Your task to perform on an android device: change notification settings in the gmail app Image 0: 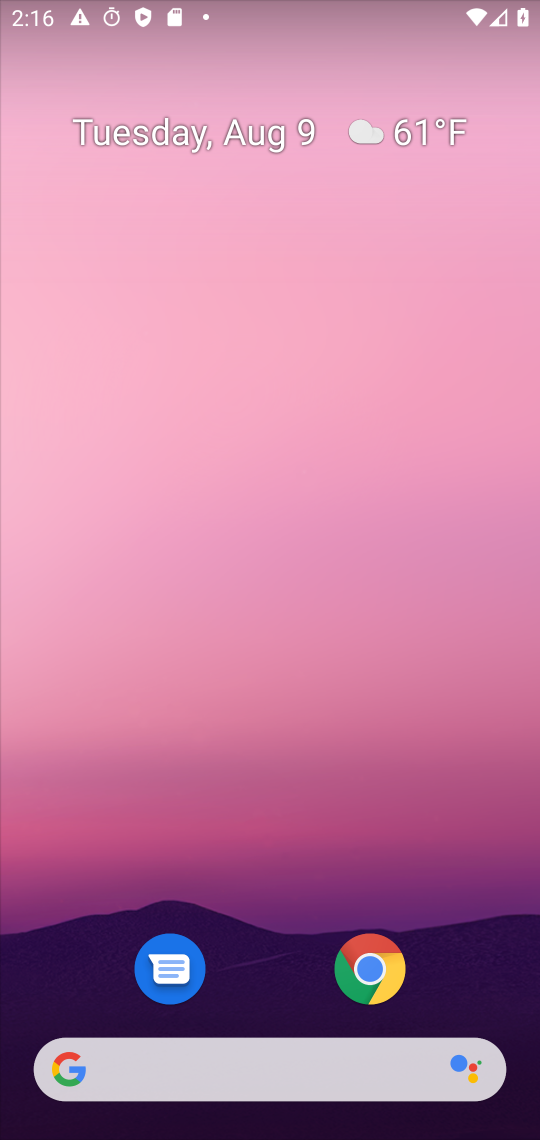
Step 0: press home button
Your task to perform on an android device: change notification settings in the gmail app Image 1: 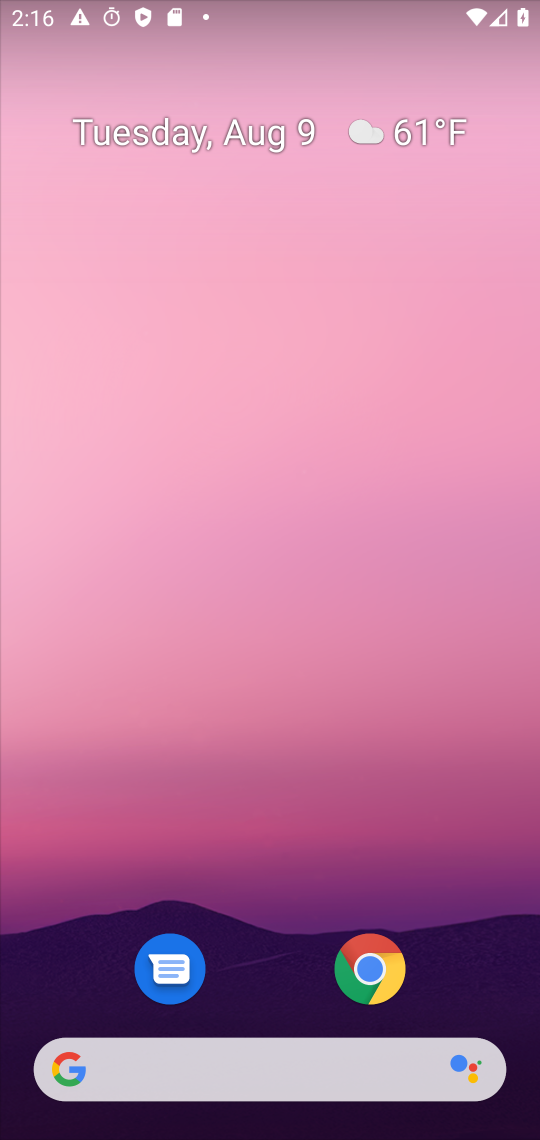
Step 1: drag from (349, 1094) to (205, 522)
Your task to perform on an android device: change notification settings in the gmail app Image 2: 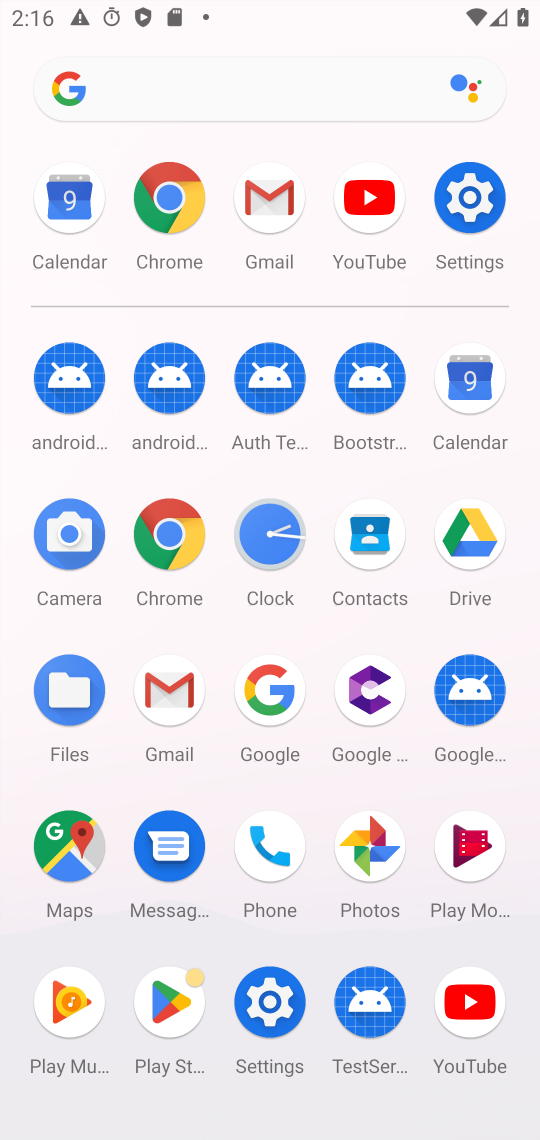
Step 2: click (160, 682)
Your task to perform on an android device: change notification settings in the gmail app Image 3: 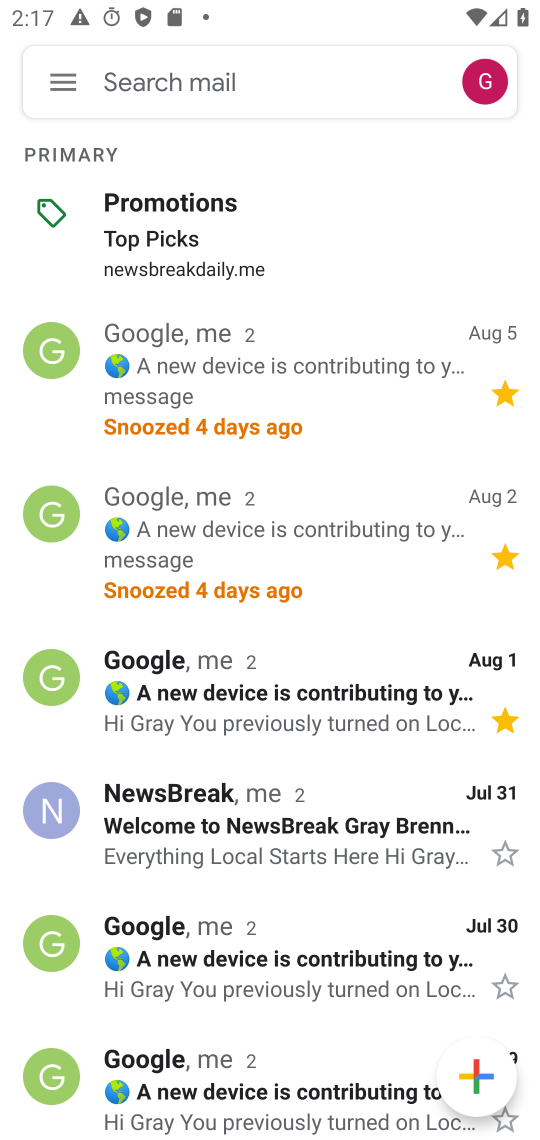
Step 3: click (62, 89)
Your task to perform on an android device: change notification settings in the gmail app Image 4: 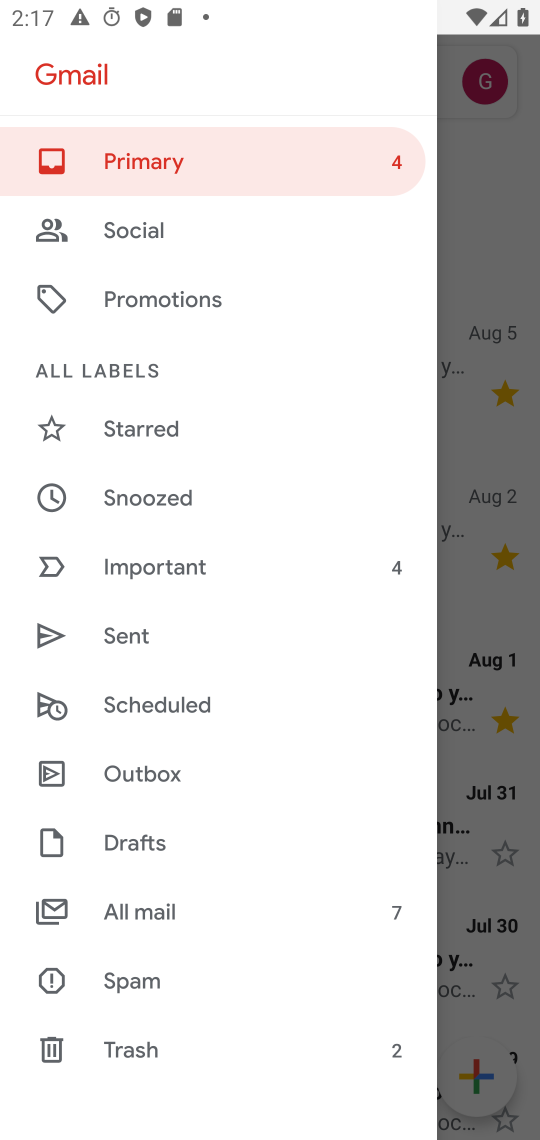
Step 4: drag from (165, 902) to (149, 687)
Your task to perform on an android device: change notification settings in the gmail app Image 5: 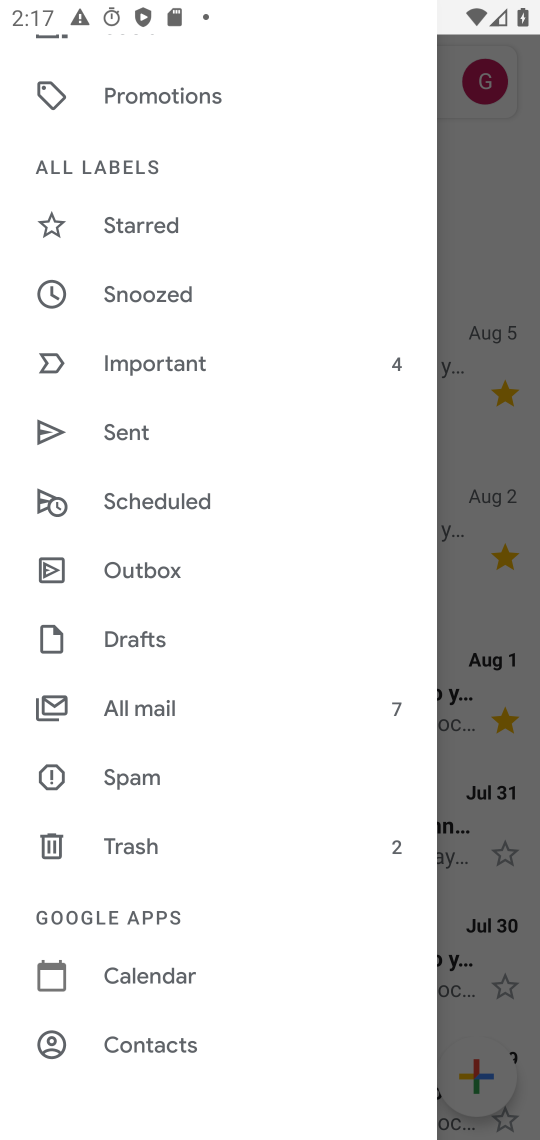
Step 5: drag from (190, 963) to (166, 823)
Your task to perform on an android device: change notification settings in the gmail app Image 6: 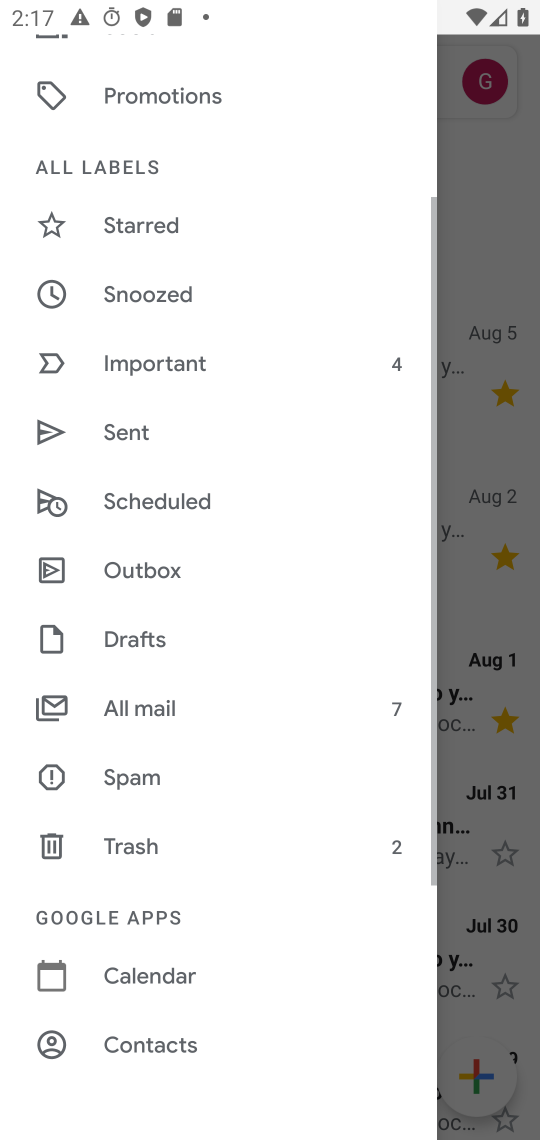
Step 6: drag from (174, 961) to (209, 823)
Your task to perform on an android device: change notification settings in the gmail app Image 7: 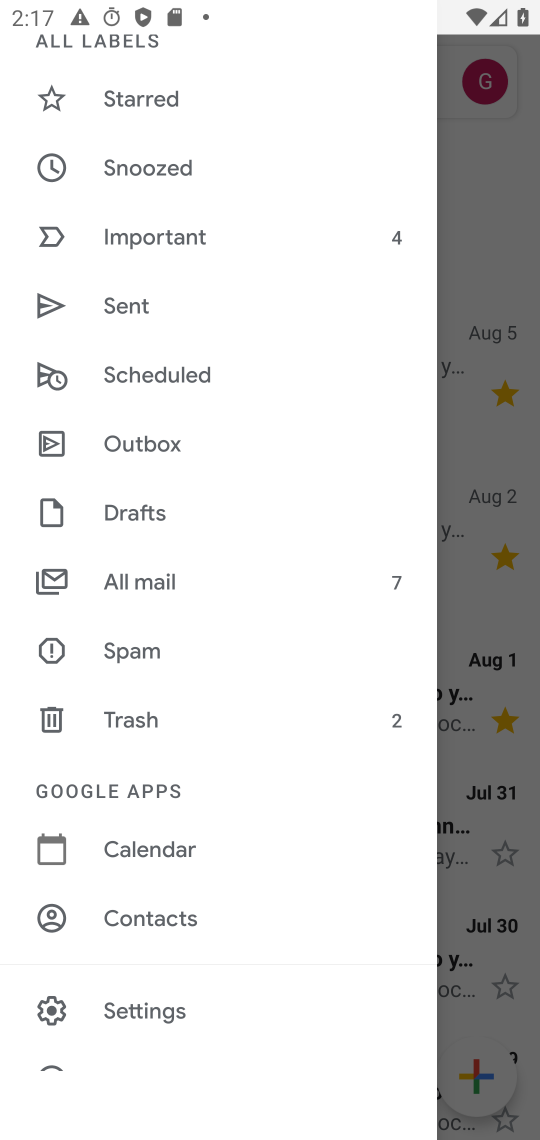
Step 7: click (133, 998)
Your task to perform on an android device: change notification settings in the gmail app Image 8: 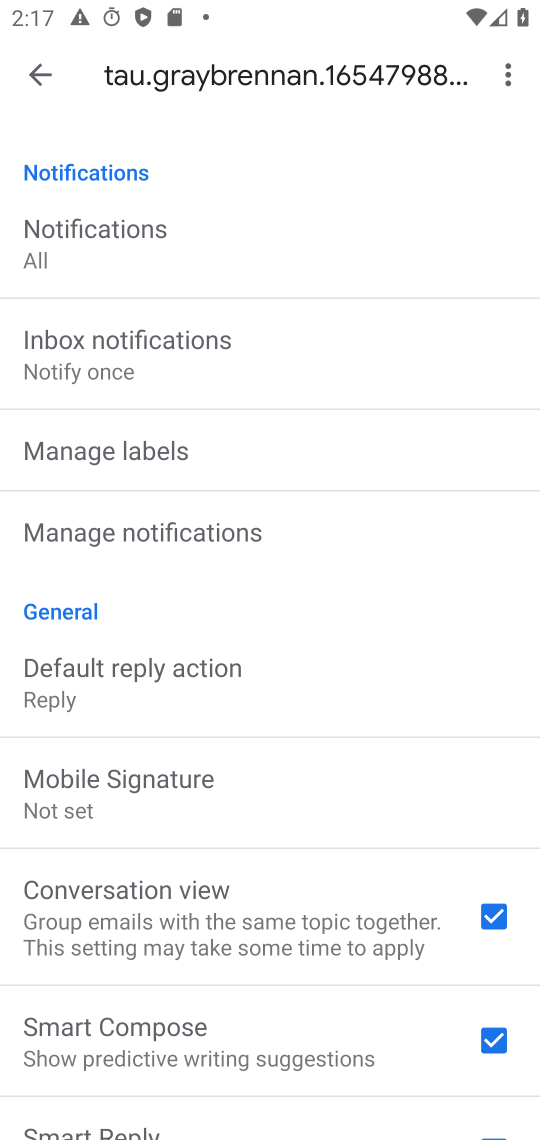
Step 8: drag from (138, 816) to (142, 600)
Your task to perform on an android device: change notification settings in the gmail app Image 9: 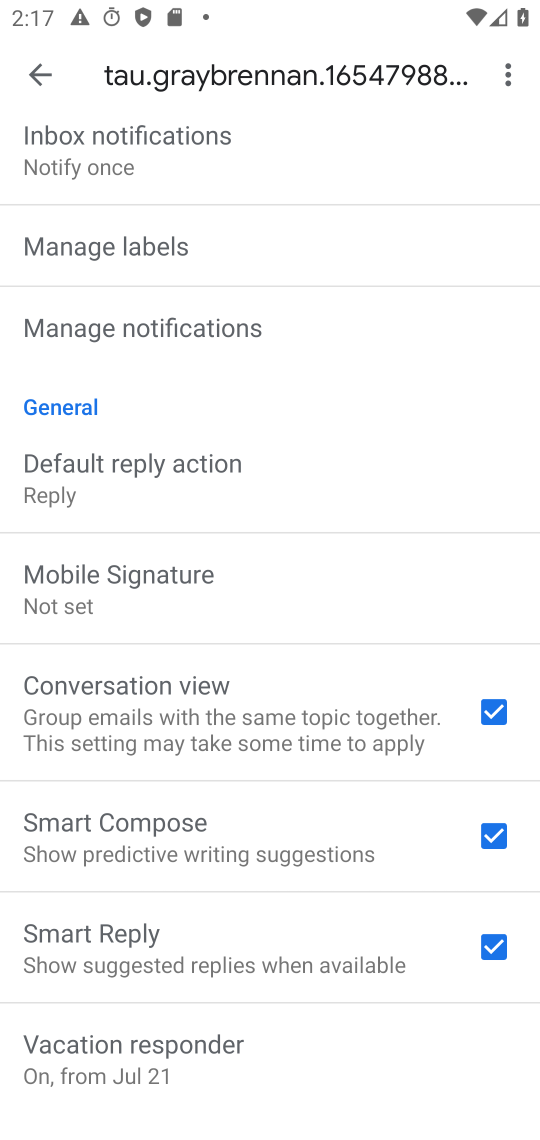
Step 9: drag from (132, 422) to (219, 750)
Your task to perform on an android device: change notification settings in the gmail app Image 10: 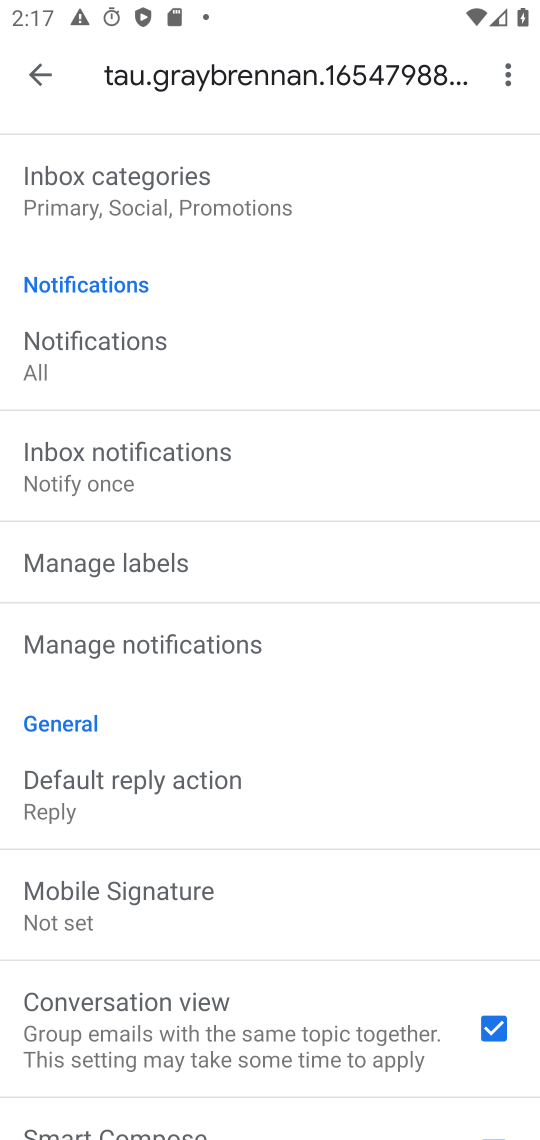
Step 10: click (154, 338)
Your task to perform on an android device: change notification settings in the gmail app Image 11: 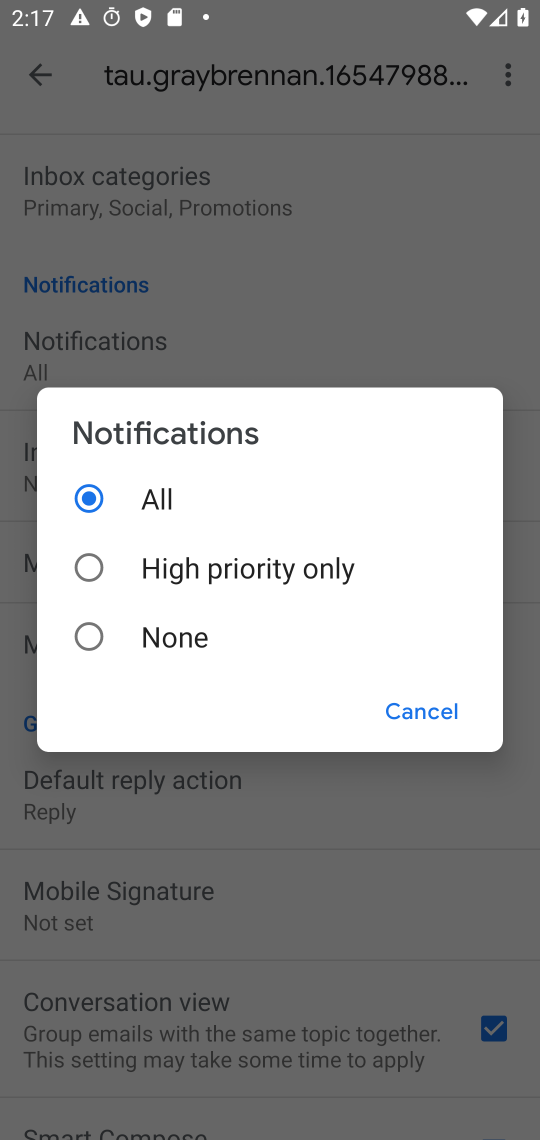
Step 11: click (152, 616)
Your task to perform on an android device: change notification settings in the gmail app Image 12: 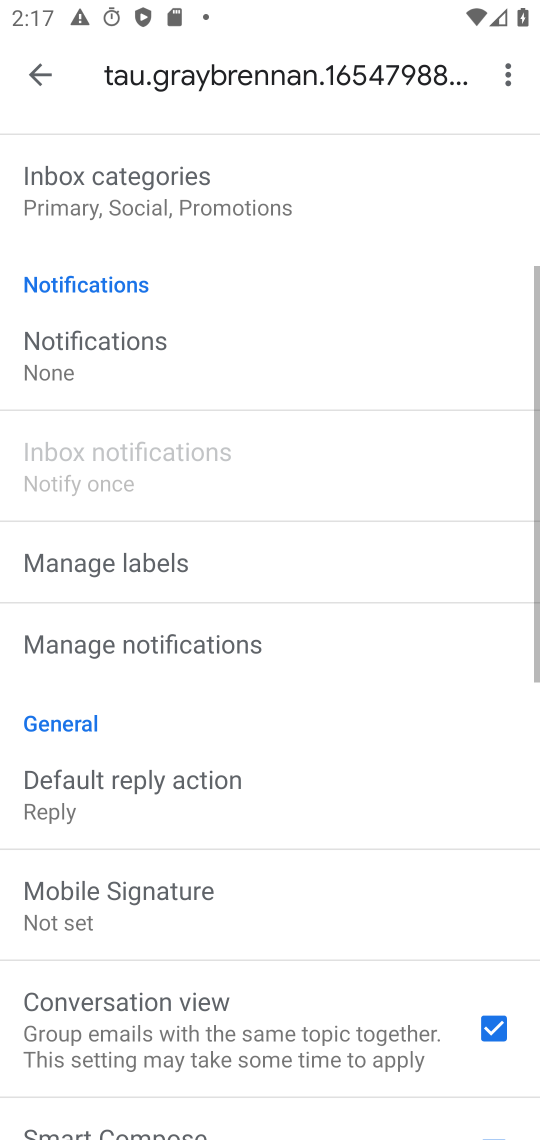
Step 12: click (97, 368)
Your task to perform on an android device: change notification settings in the gmail app Image 13: 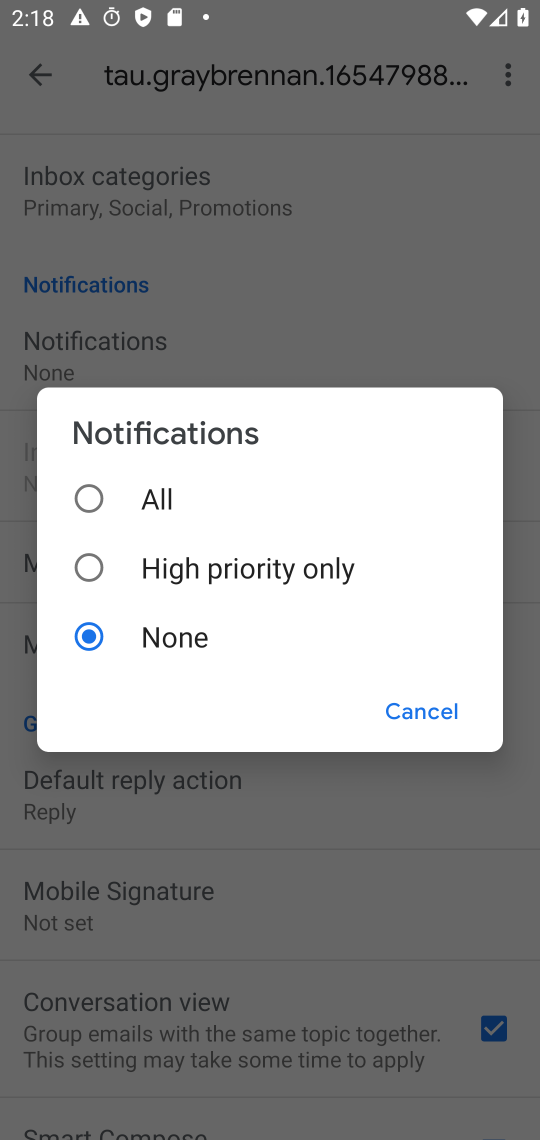
Step 13: task complete